Your task to perform on an android device: allow cookies in the chrome app Image 0: 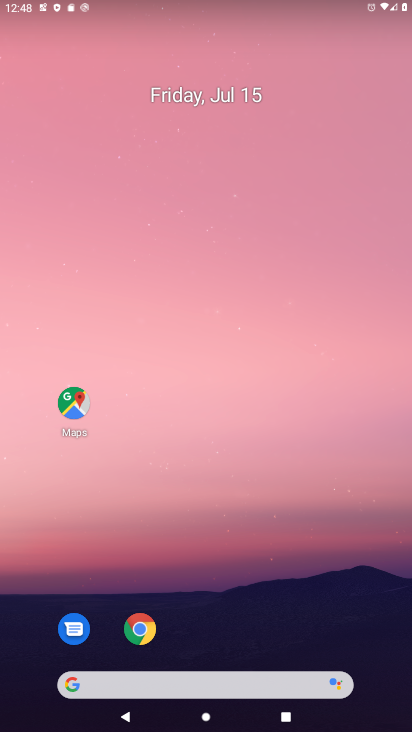
Step 0: press home button
Your task to perform on an android device: allow cookies in the chrome app Image 1: 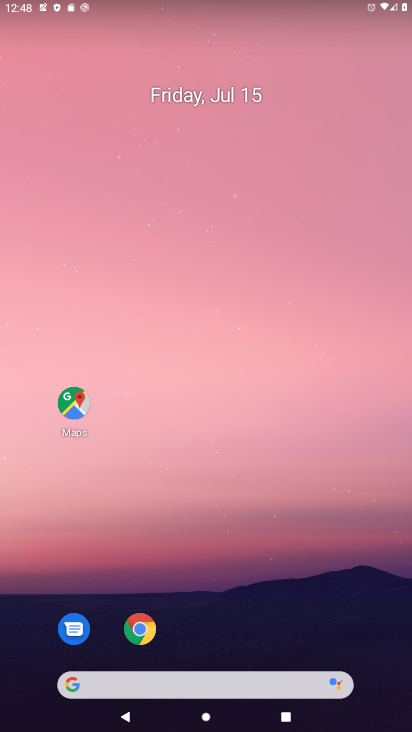
Step 1: drag from (239, 639) to (280, 79)
Your task to perform on an android device: allow cookies in the chrome app Image 2: 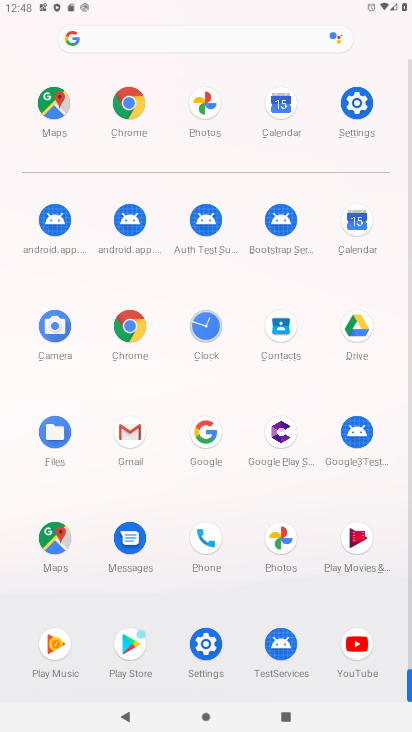
Step 2: click (133, 108)
Your task to perform on an android device: allow cookies in the chrome app Image 3: 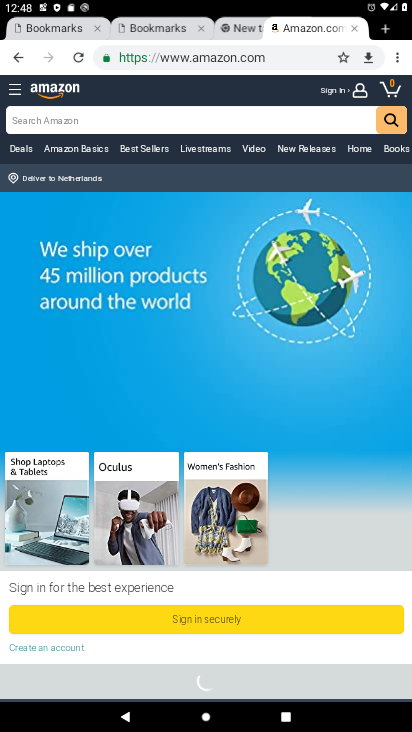
Step 3: drag from (404, 52) to (286, 376)
Your task to perform on an android device: allow cookies in the chrome app Image 4: 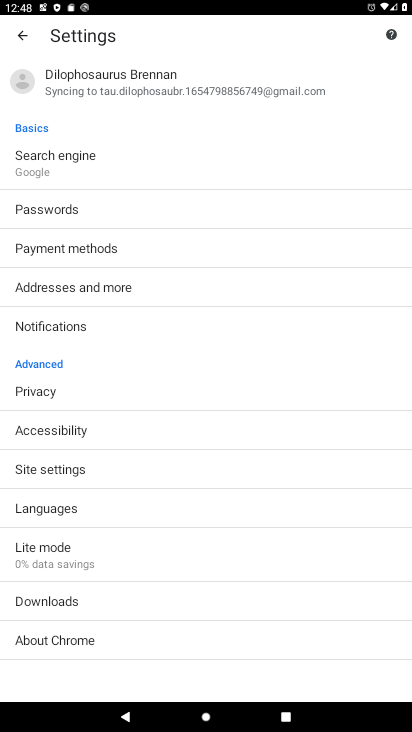
Step 4: click (29, 474)
Your task to perform on an android device: allow cookies in the chrome app Image 5: 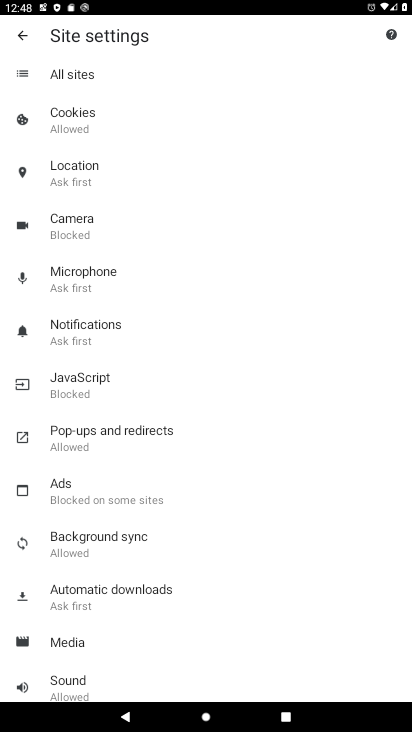
Step 5: click (74, 119)
Your task to perform on an android device: allow cookies in the chrome app Image 6: 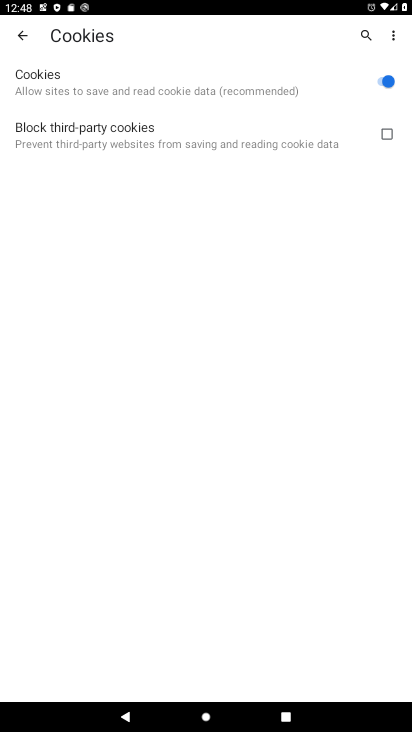
Step 6: task complete